Your task to perform on an android device: Add bose quietcomfort 35 to the cart on target Image 0: 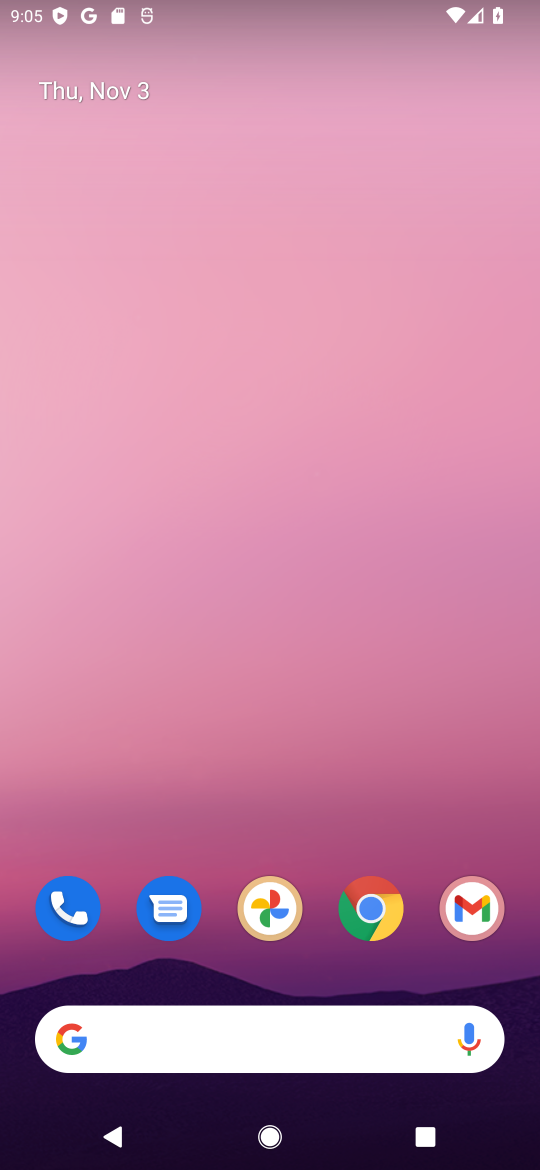
Step 0: click (383, 907)
Your task to perform on an android device: Add bose quietcomfort 35 to the cart on target Image 1: 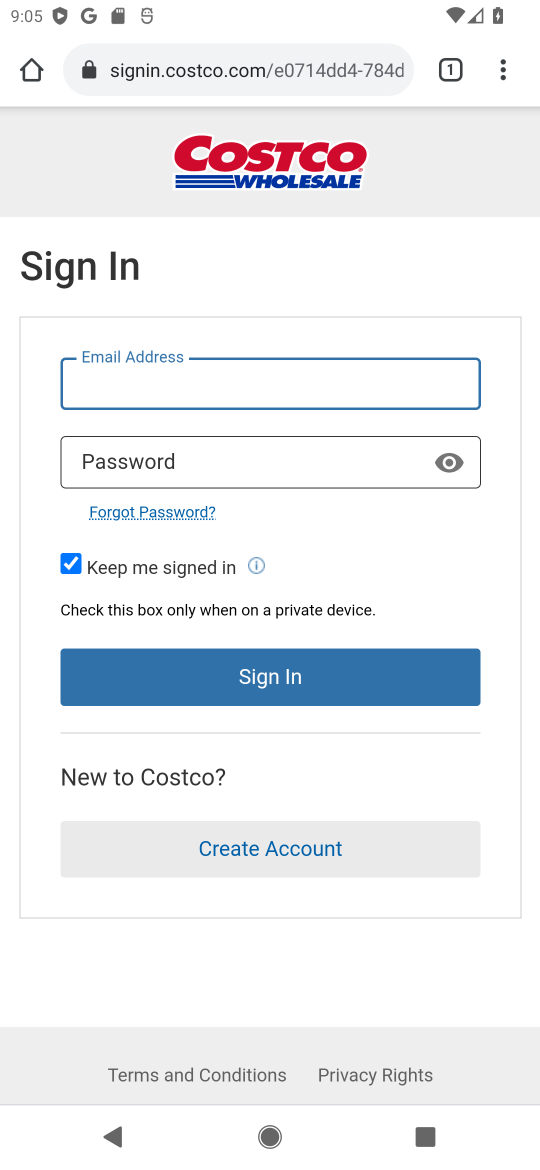
Step 1: click (197, 50)
Your task to perform on an android device: Add bose quietcomfort 35 to the cart on target Image 2: 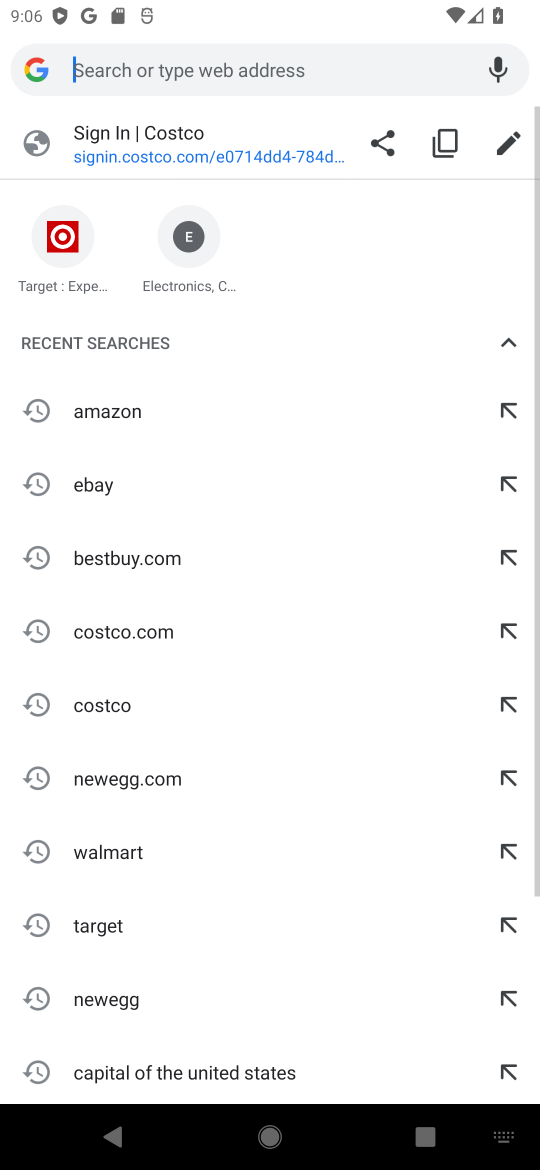
Step 2: click (48, 237)
Your task to perform on an android device: Add bose quietcomfort 35 to the cart on target Image 3: 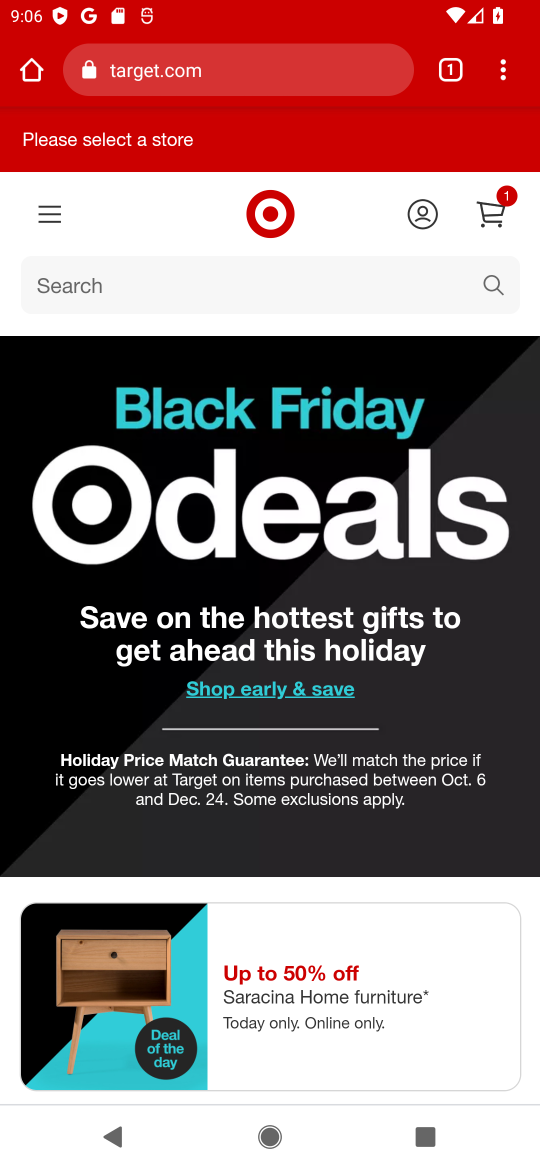
Step 3: click (493, 279)
Your task to perform on an android device: Add bose quietcomfort 35 to the cart on target Image 4: 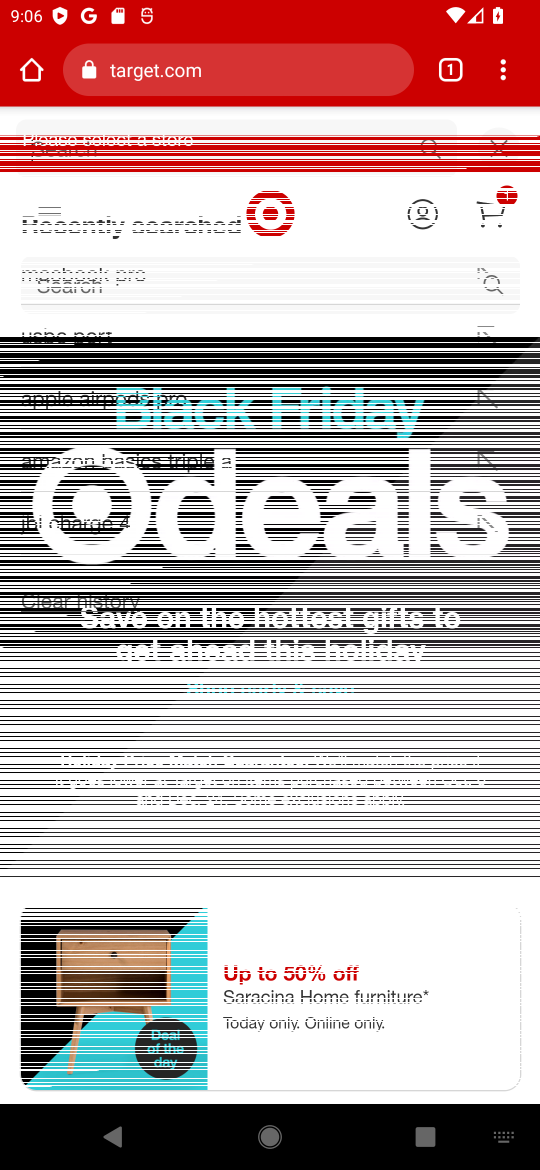
Step 4: type "bose quietcomfort 35"
Your task to perform on an android device: Add bose quietcomfort 35 to the cart on target Image 5: 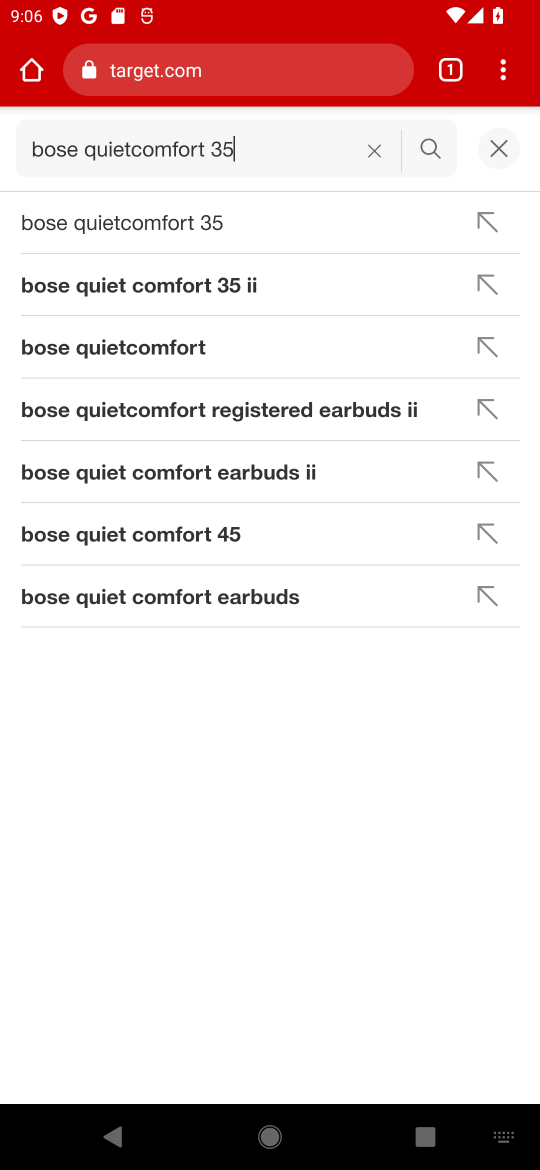
Step 5: click (102, 215)
Your task to perform on an android device: Add bose quietcomfort 35 to the cart on target Image 6: 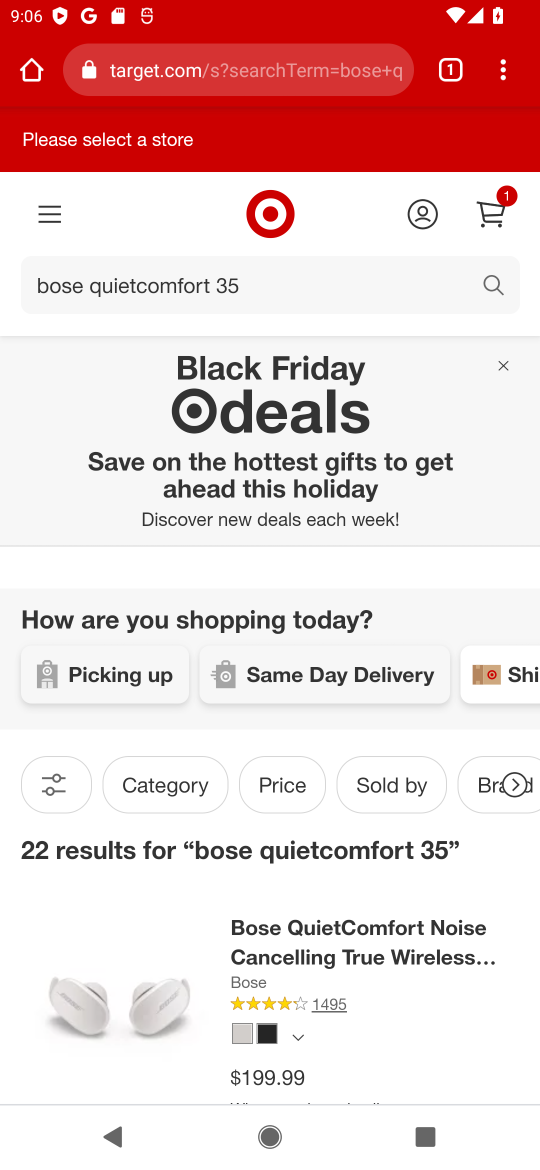
Step 6: task complete